Your task to perform on an android device: open app "Yahoo Mail" (install if not already installed) Image 0: 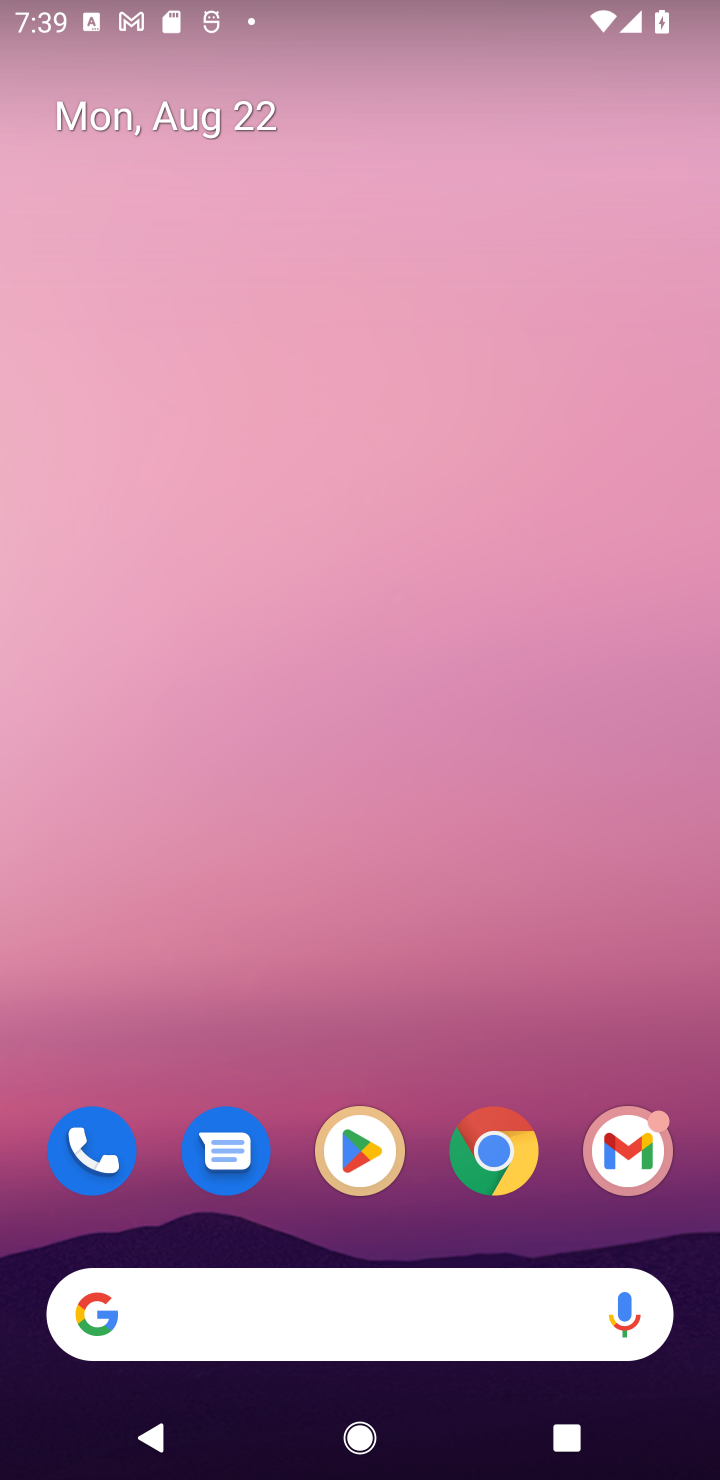
Step 0: press home button
Your task to perform on an android device: open app "Yahoo Mail" (install if not already installed) Image 1: 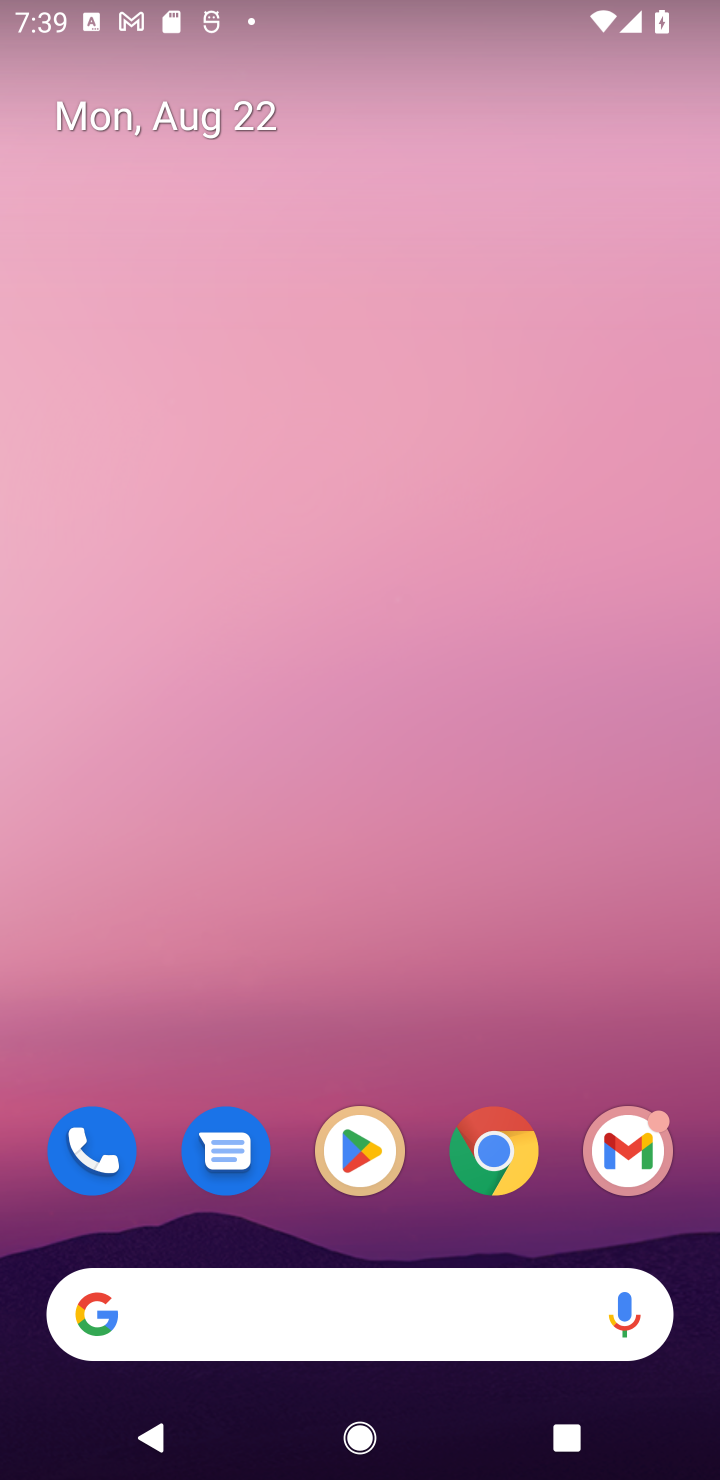
Step 1: click (350, 1139)
Your task to perform on an android device: open app "Yahoo Mail" (install if not already installed) Image 2: 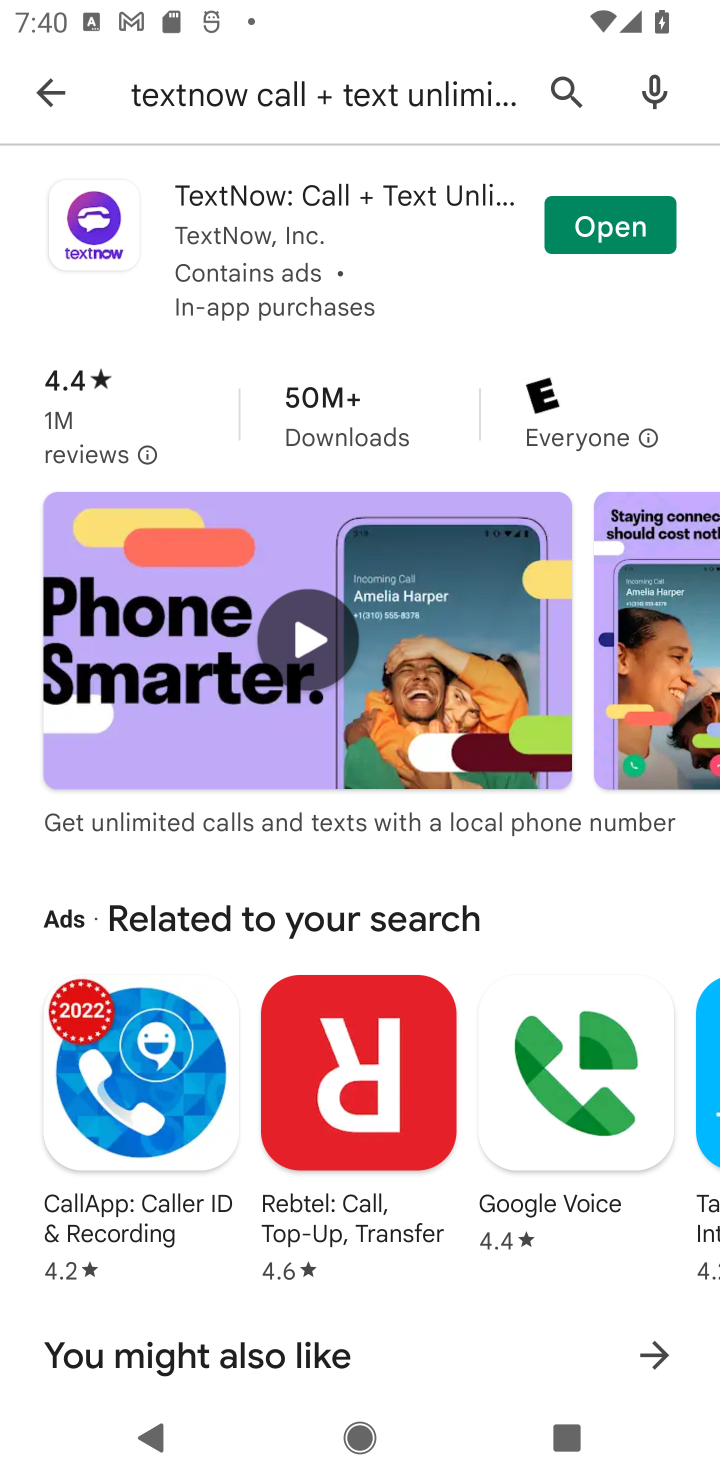
Step 2: click (547, 87)
Your task to perform on an android device: open app "Yahoo Mail" (install if not already installed) Image 3: 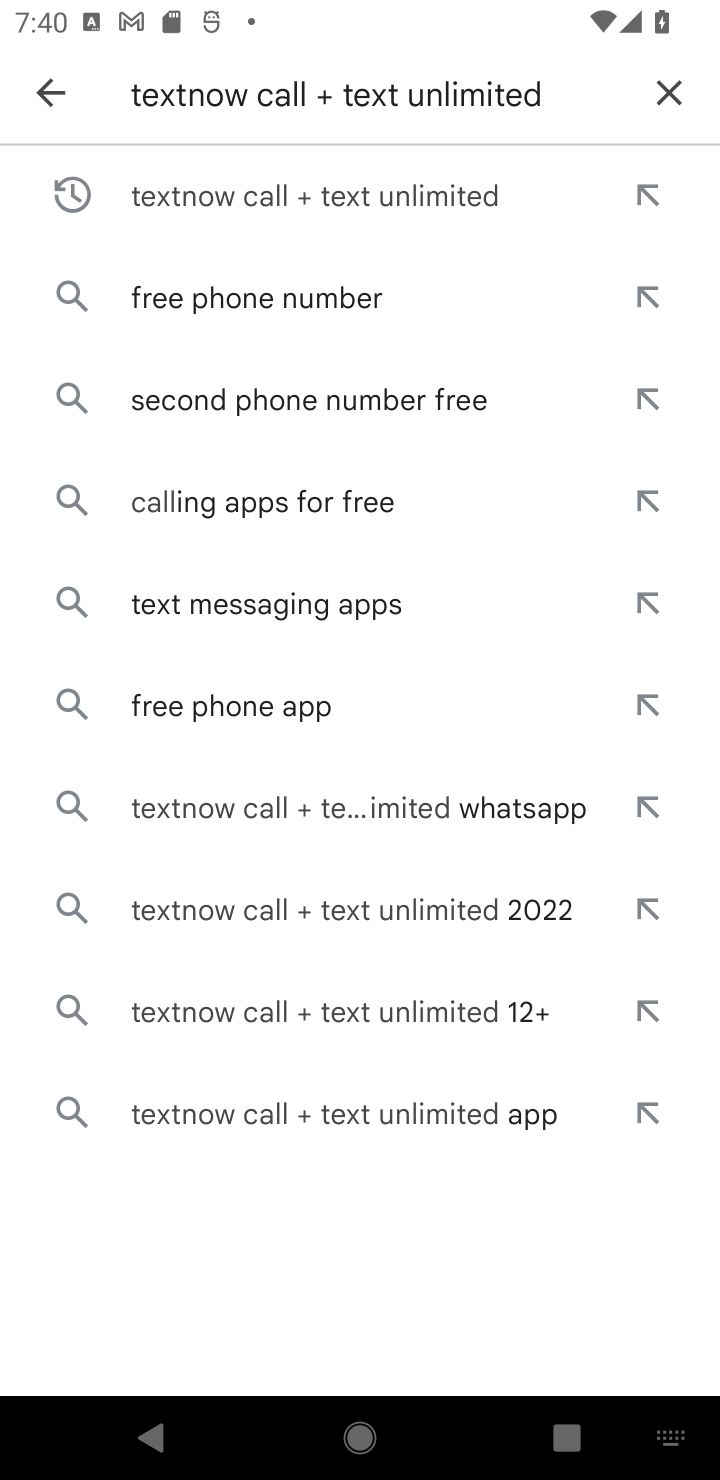
Step 3: click (658, 93)
Your task to perform on an android device: open app "Yahoo Mail" (install if not already installed) Image 4: 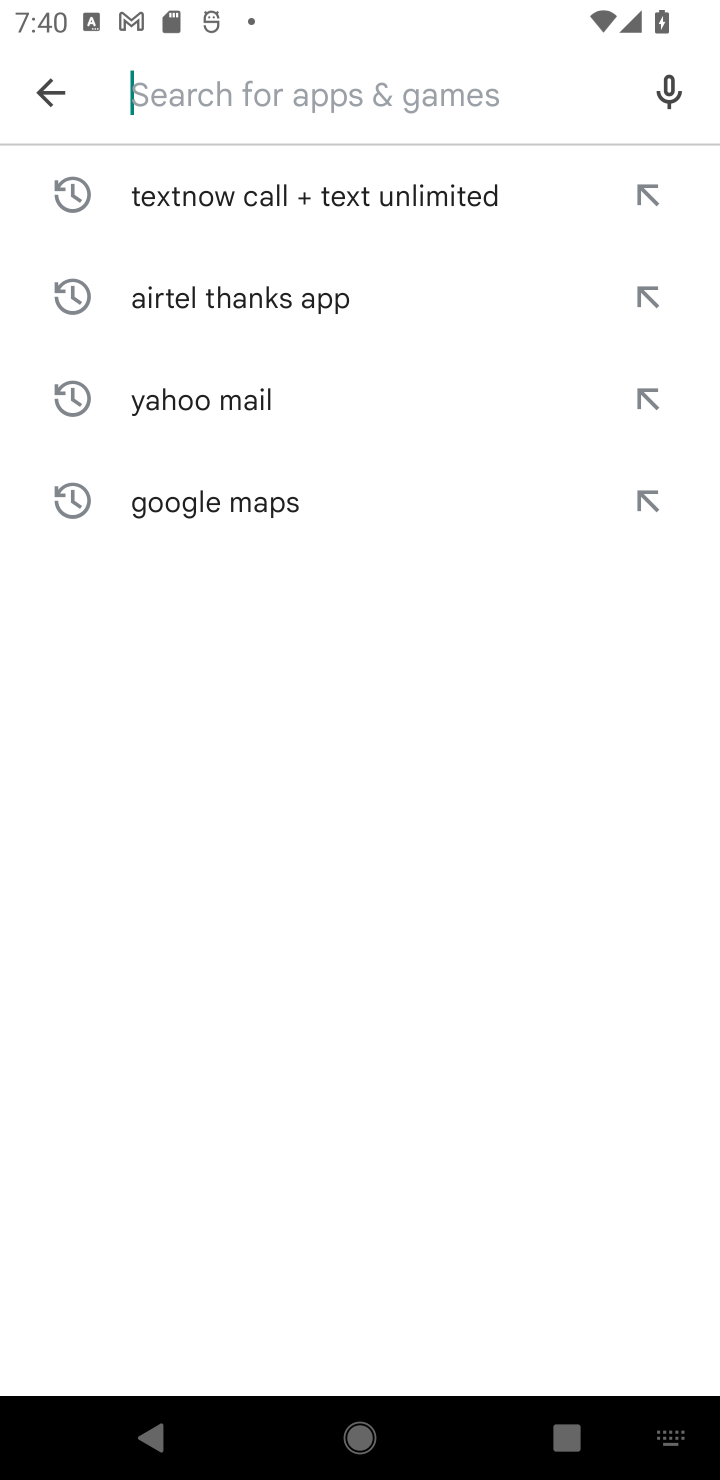
Step 4: type "Yahoo Mail"
Your task to perform on an android device: open app "Yahoo Mail" (install if not already installed) Image 5: 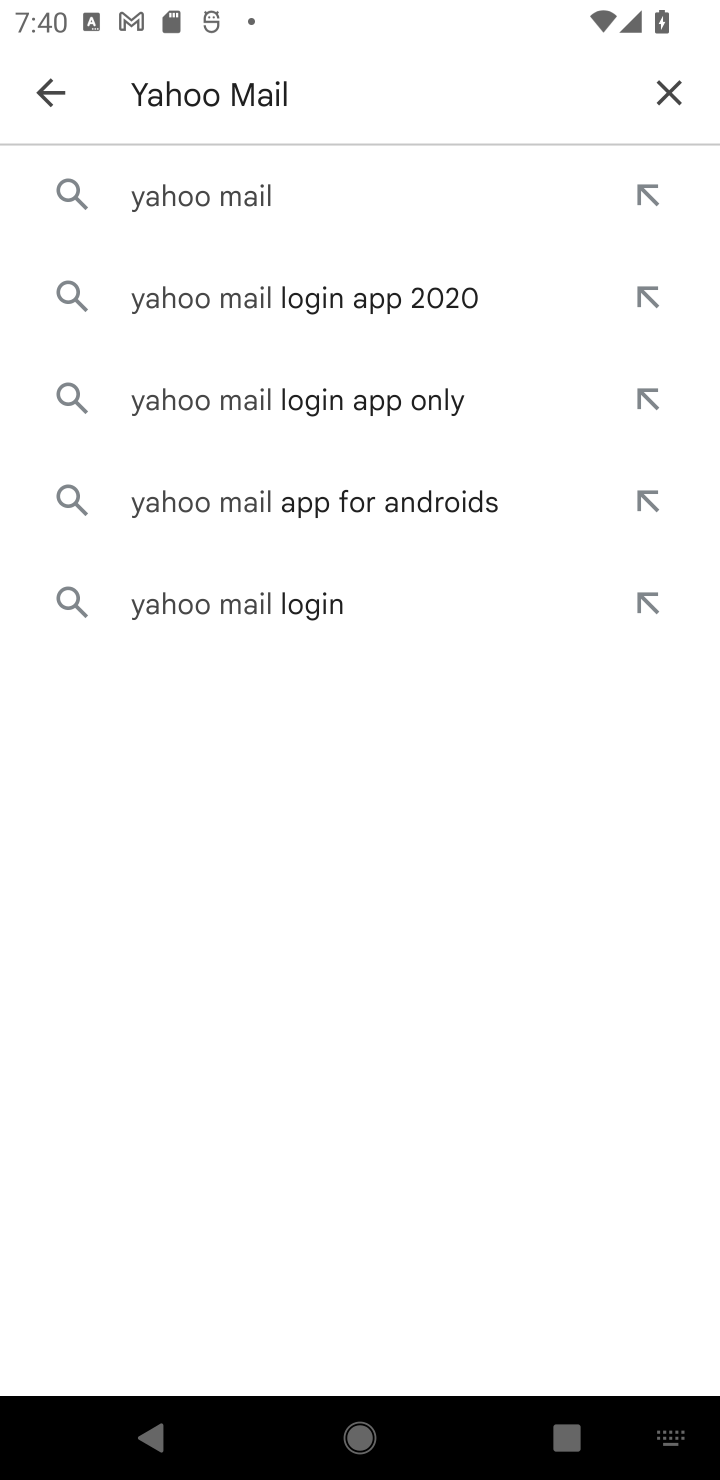
Step 5: click (176, 185)
Your task to perform on an android device: open app "Yahoo Mail" (install if not already installed) Image 6: 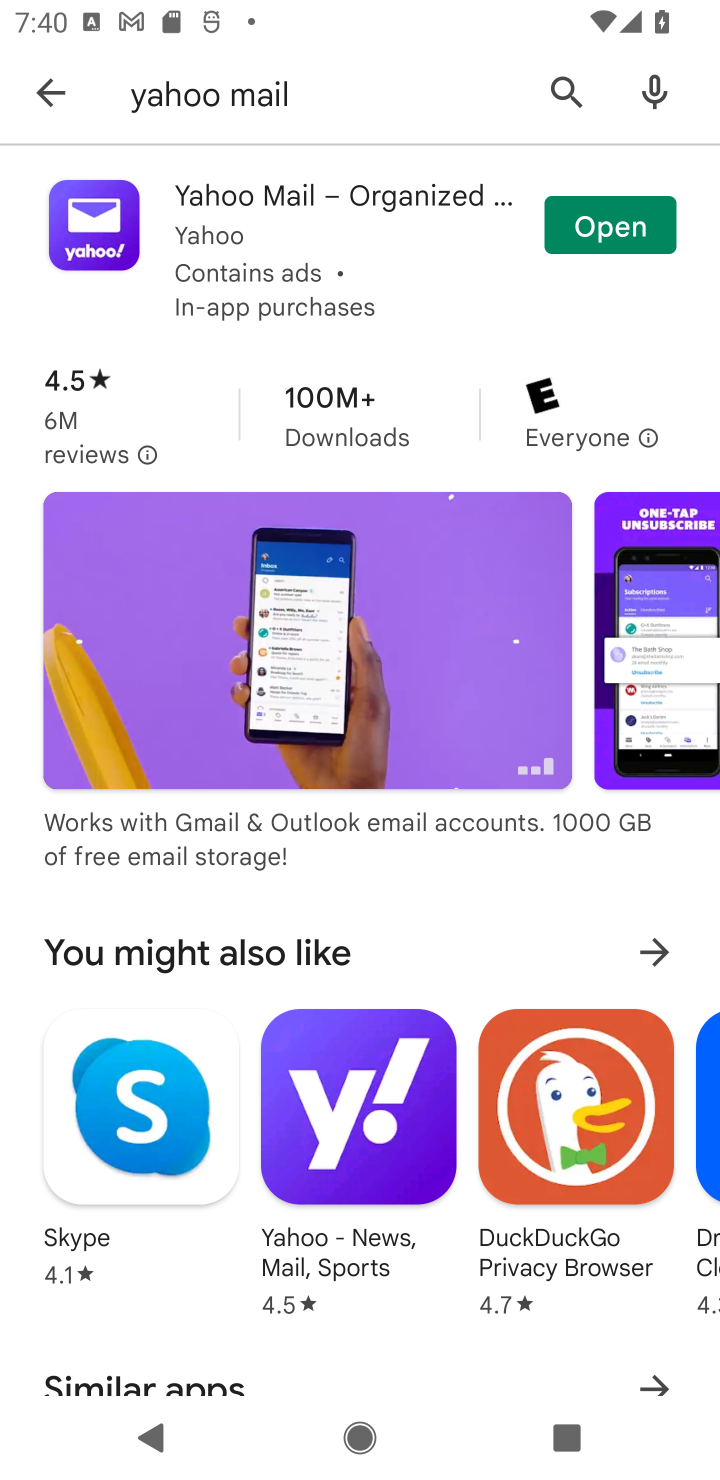
Step 6: click (612, 214)
Your task to perform on an android device: open app "Yahoo Mail" (install if not already installed) Image 7: 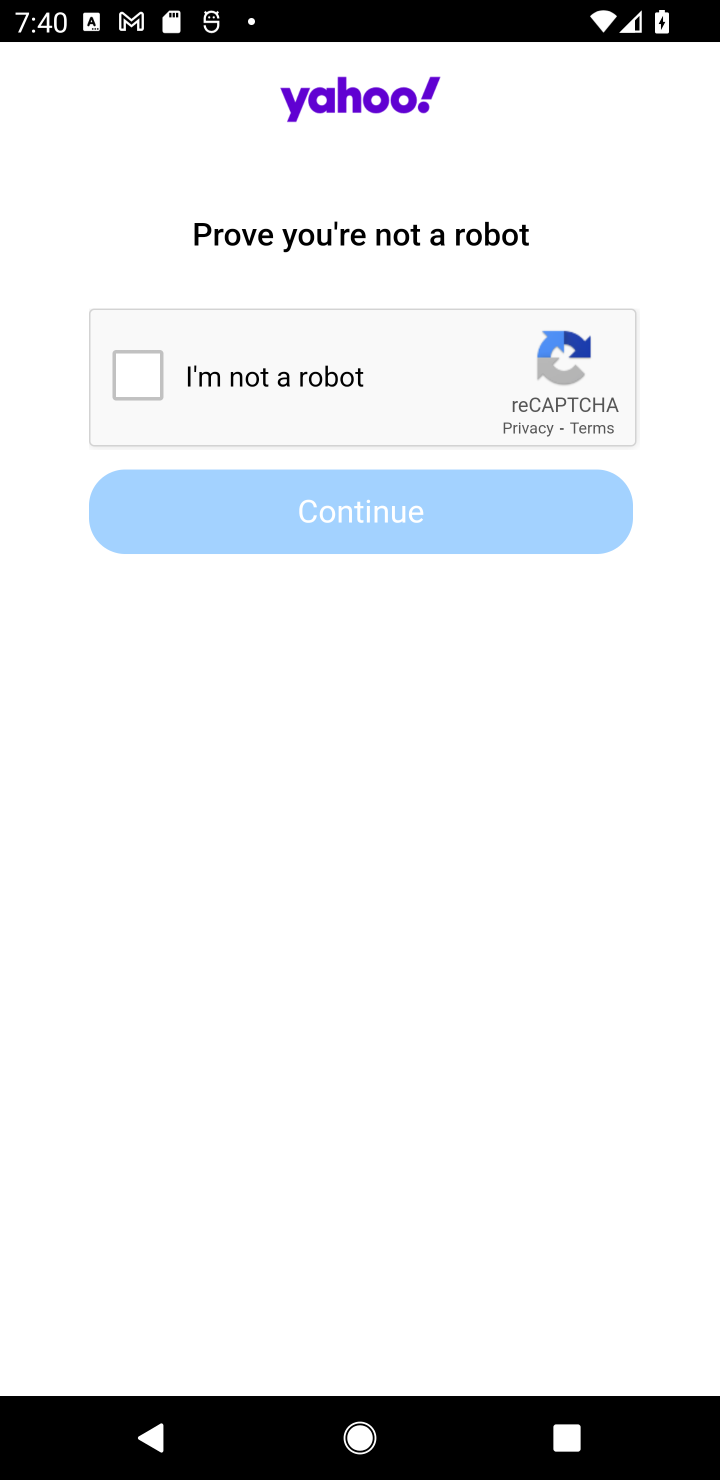
Step 7: task complete